Your task to perform on an android device: find snoozed emails in the gmail app Image 0: 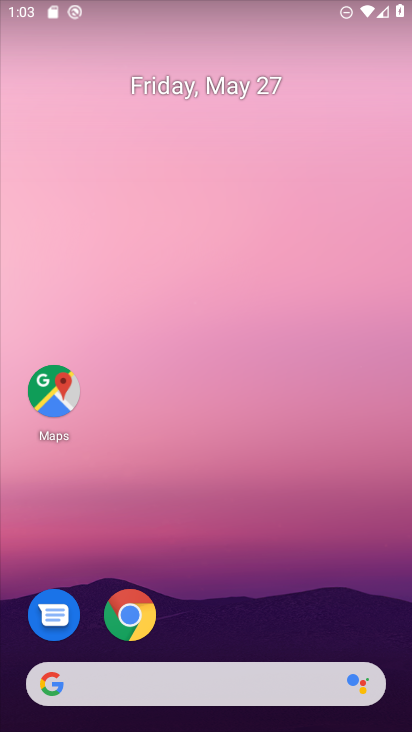
Step 0: drag from (224, 468) to (196, 156)
Your task to perform on an android device: find snoozed emails in the gmail app Image 1: 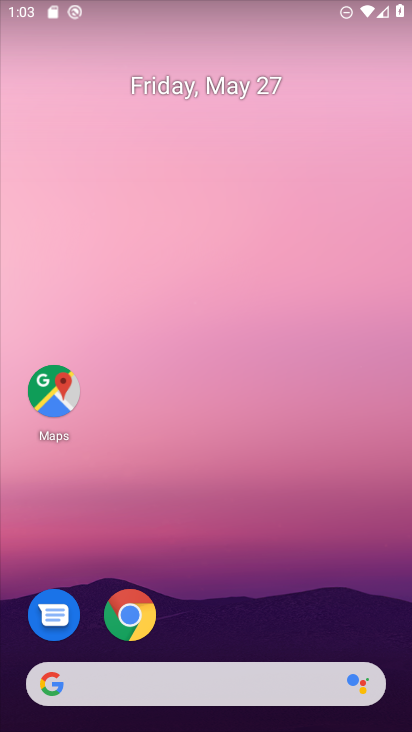
Step 1: drag from (245, 598) to (226, 86)
Your task to perform on an android device: find snoozed emails in the gmail app Image 2: 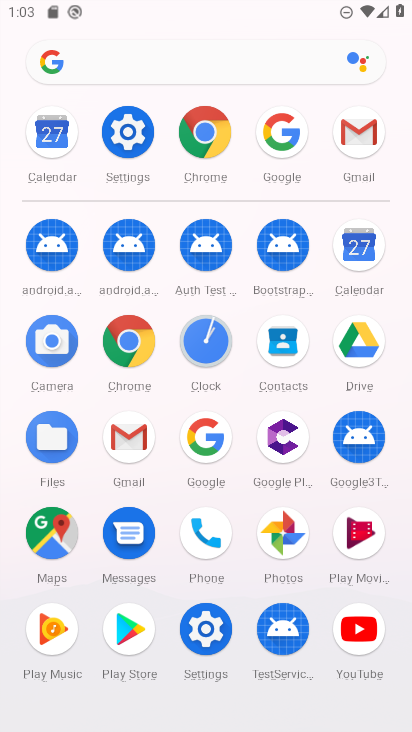
Step 2: click (115, 445)
Your task to perform on an android device: find snoozed emails in the gmail app Image 3: 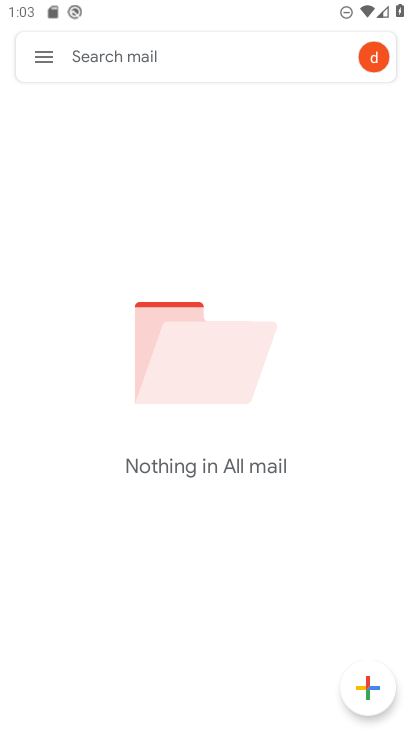
Step 3: click (30, 71)
Your task to perform on an android device: find snoozed emails in the gmail app Image 4: 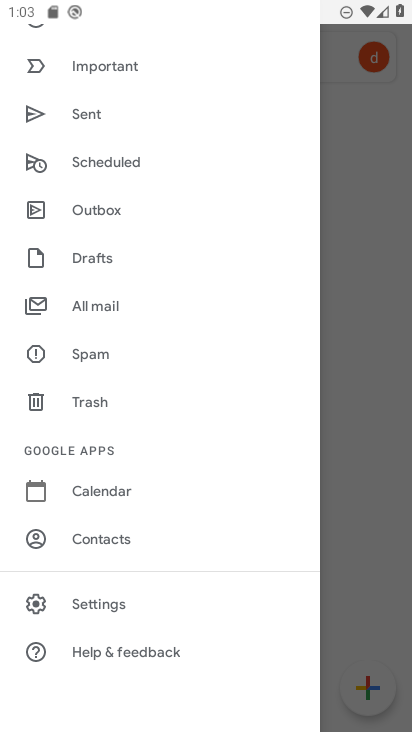
Step 4: drag from (149, 543) to (136, 575)
Your task to perform on an android device: find snoozed emails in the gmail app Image 5: 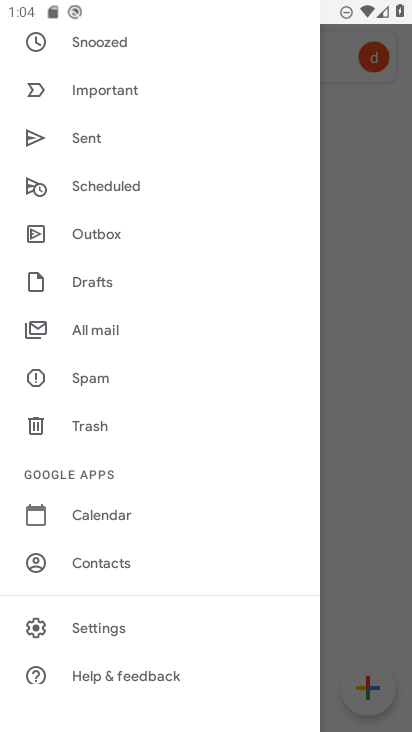
Step 5: click (132, 51)
Your task to perform on an android device: find snoozed emails in the gmail app Image 6: 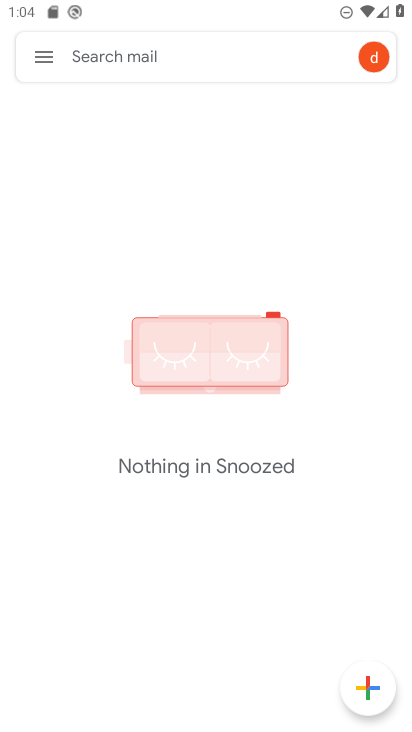
Step 6: task complete